Your task to perform on an android device: turn on airplane mode Image 0: 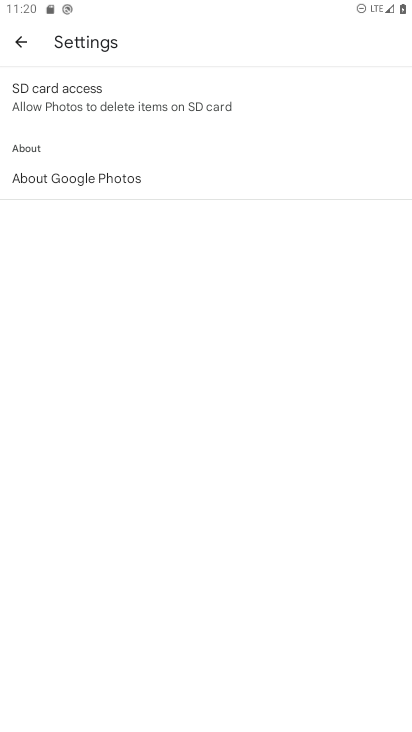
Step 0: press home button
Your task to perform on an android device: turn on airplane mode Image 1: 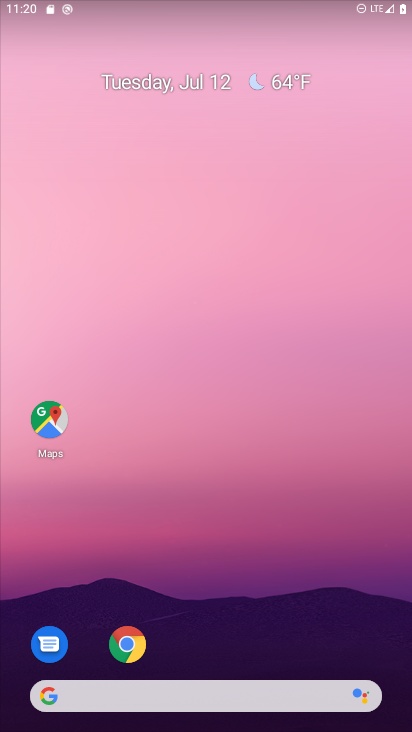
Step 1: drag from (259, 639) to (254, 144)
Your task to perform on an android device: turn on airplane mode Image 2: 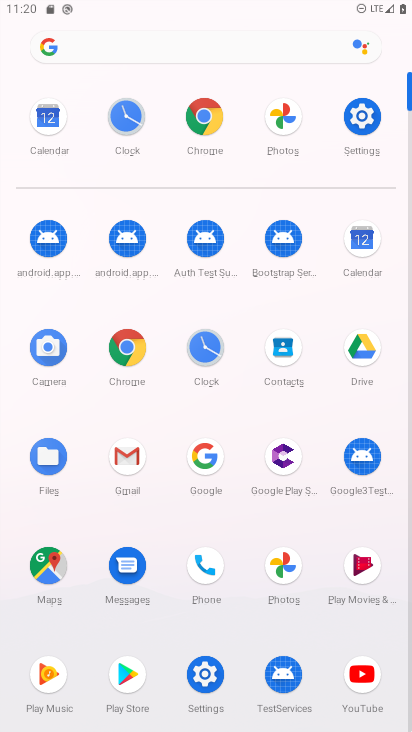
Step 2: click (373, 126)
Your task to perform on an android device: turn on airplane mode Image 3: 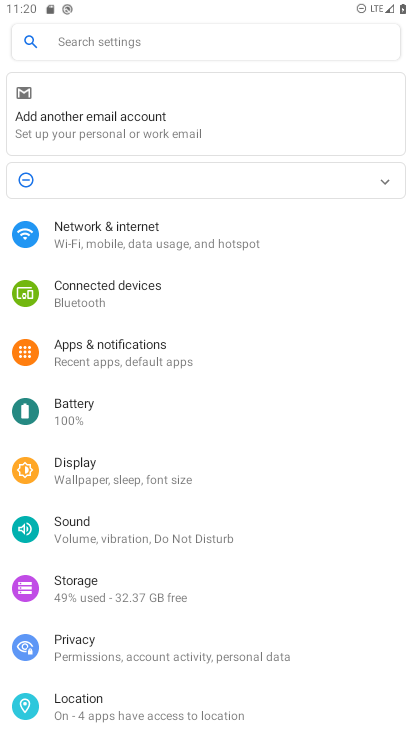
Step 3: drag from (147, 563) to (148, 518)
Your task to perform on an android device: turn on airplane mode Image 4: 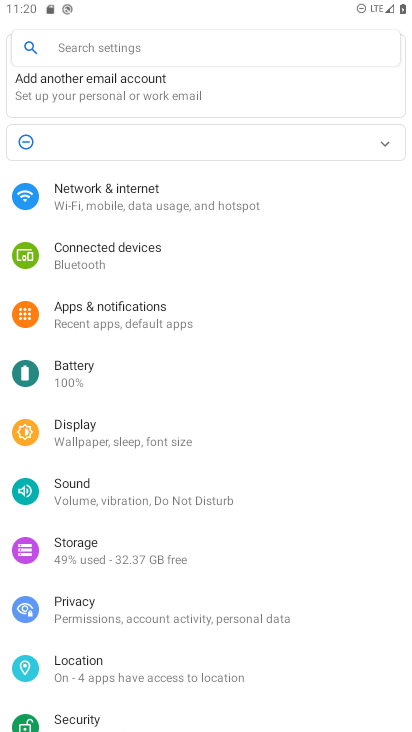
Step 4: click (201, 222)
Your task to perform on an android device: turn on airplane mode Image 5: 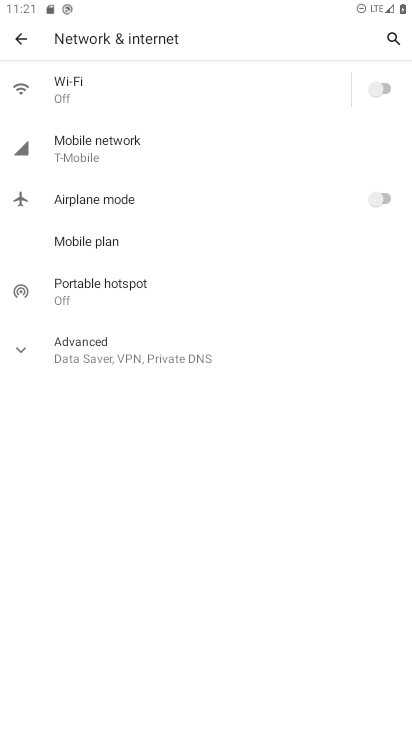
Step 5: click (372, 195)
Your task to perform on an android device: turn on airplane mode Image 6: 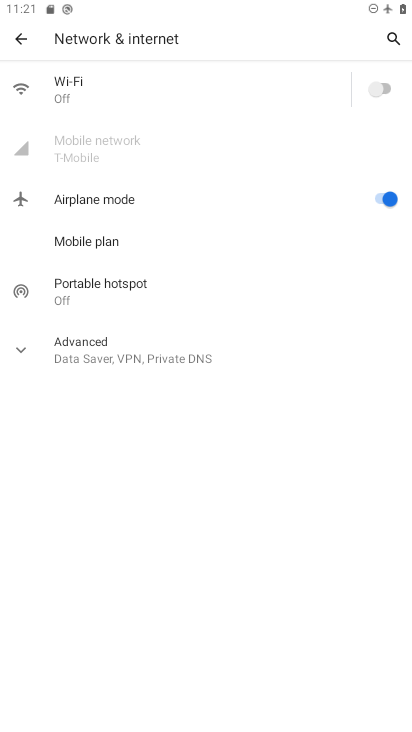
Step 6: click (372, 195)
Your task to perform on an android device: turn on airplane mode Image 7: 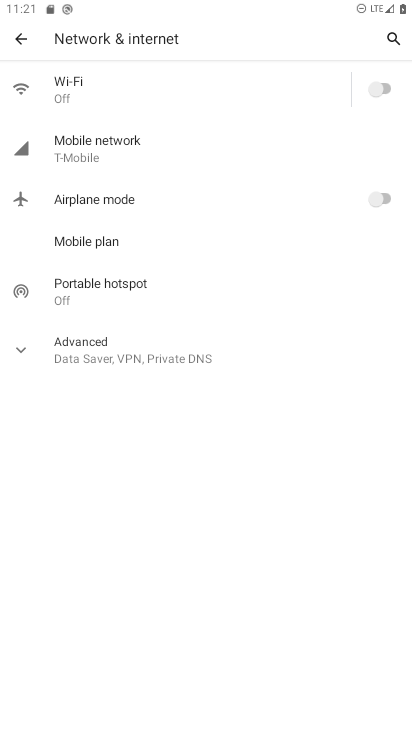
Step 7: task complete